Your task to perform on an android device: toggle priority inbox in the gmail app Image 0: 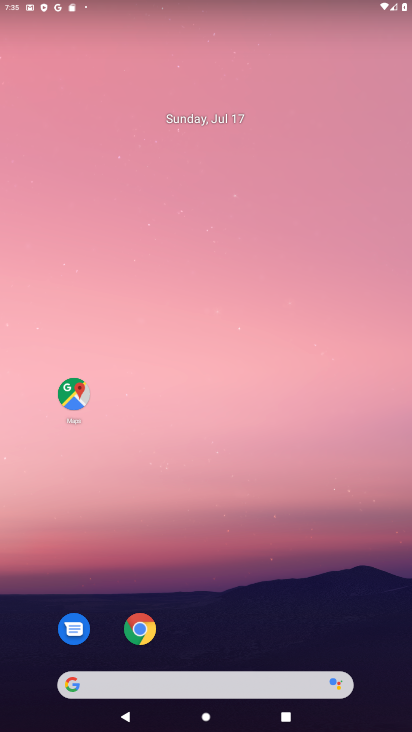
Step 0: drag from (203, 656) to (20, 410)
Your task to perform on an android device: toggle priority inbox in the gmail app Image 1: 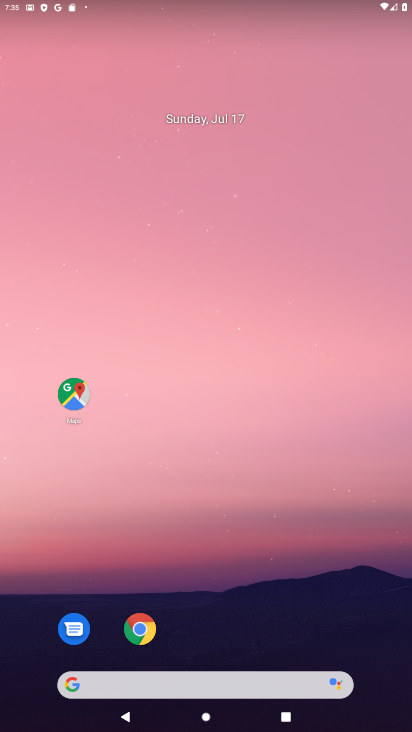
Step 1: drag from (190, 657) to (222, 32)
Your task to perform on an android device: toggle priority inbox in the gmail app Image 2: 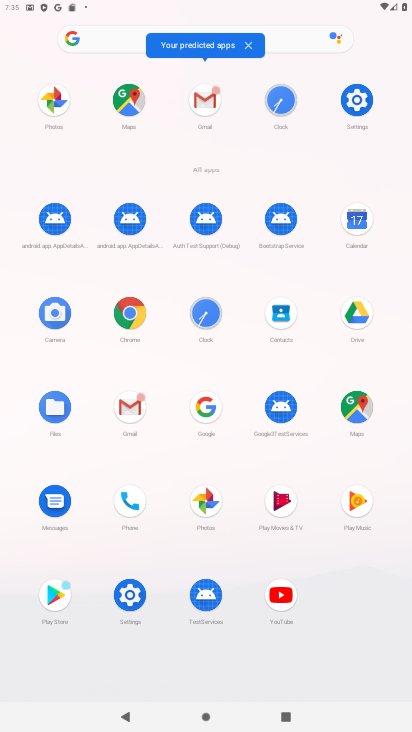
Step 2: click (137, 411)
Your task to perform on an android device: toggle priority inbox in the gmail app Image 3: 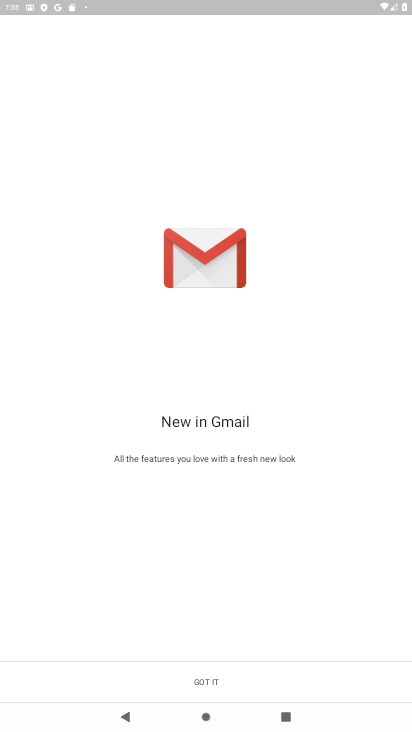
Step 3: click (282, 668)
Your task to perform on an android device: toggle priority inbox in the gmail app Image 4: 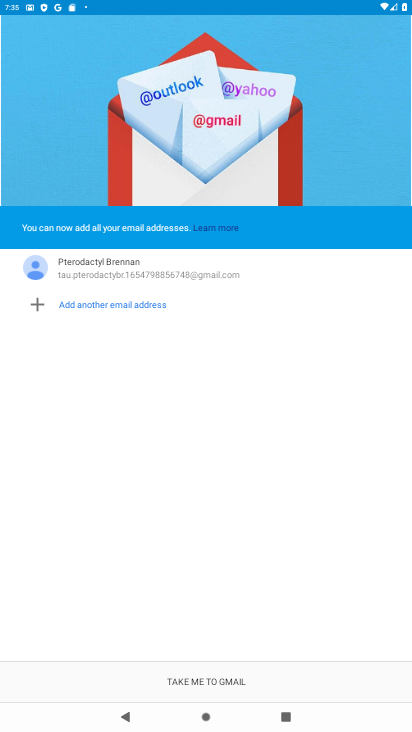
Step 4: click (209, 679)
Your task to perform on an android device: toggle priority inbox in the gmail app Image 5: 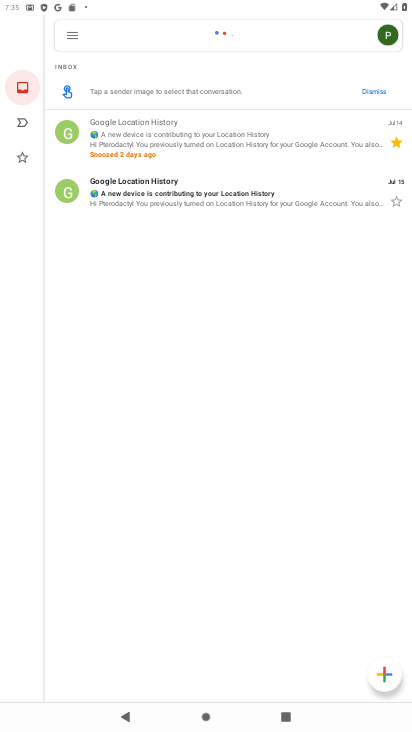
Step 5: click (73, 33)
Your task to perform on an android device: toggle priority inbox in the gmail app Image 6: 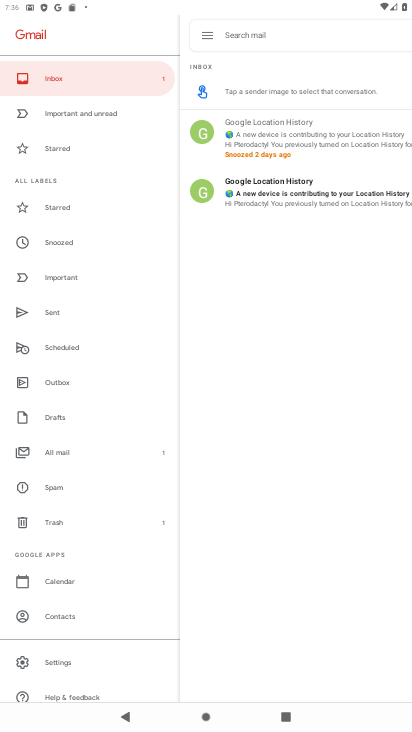
Step 6: click (63, 677)
Your task to perform on an android device: toggle priority inbox in the gmail app Image 7: 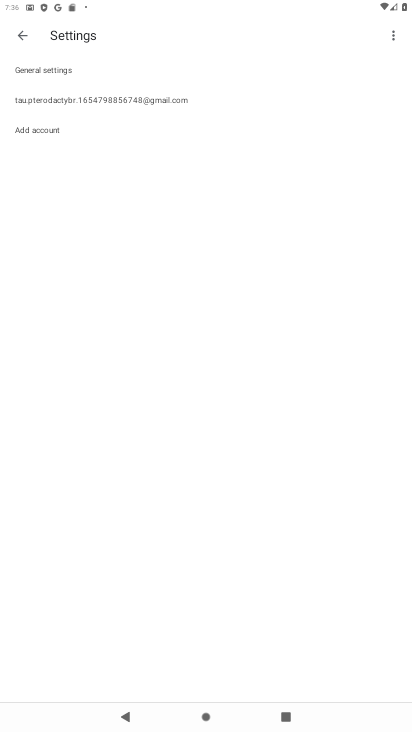
Step 7: click (58, 108)
Your task to perform on an android device: toggle priority inbox in the gmail app Image 8: 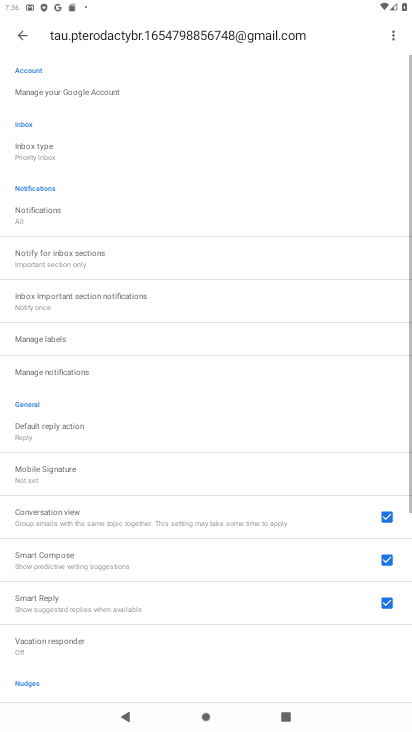
Step 8: click (56, 165)
Your task to perform on an android device: toggle priority inbox in the gmail app Image 9: 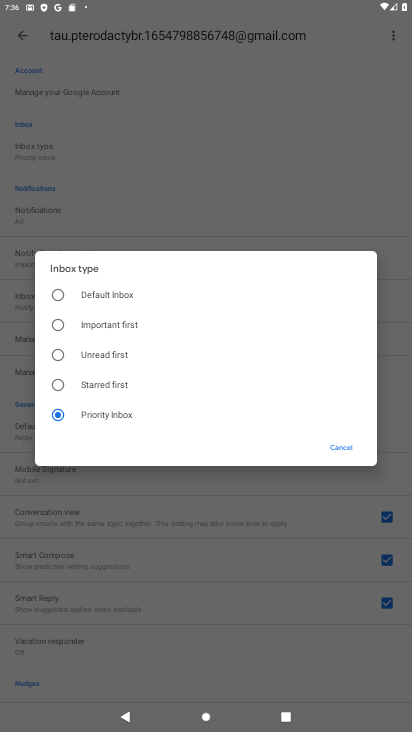
Step 9: click (80, 382)
Your task to perform on an android device: toggle priority inbox in the gmail app Image 10: 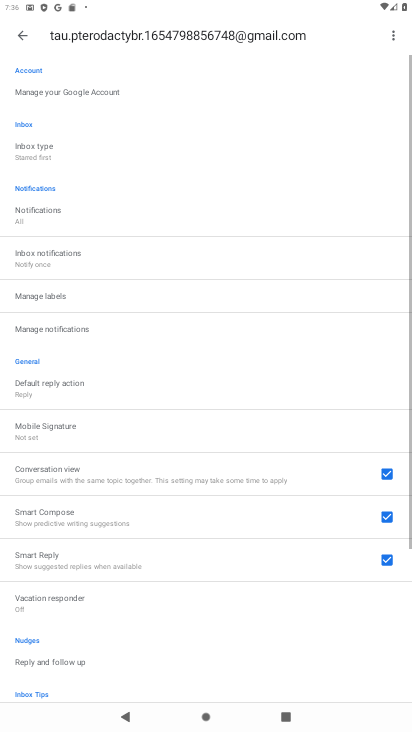
Step 10: task complete